Your task to perform on an android device: turn off improve location accuracy Image 0: 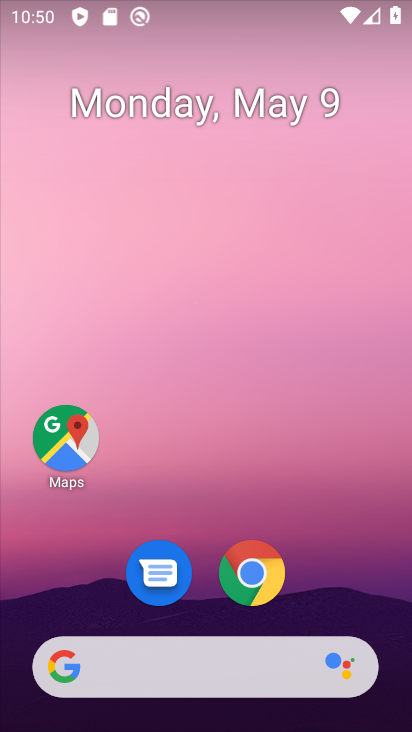
Step 0: drag from (226, 577) to (230, 104)
Your task to perform on an android device: turn off improve location accuracy Image 1: 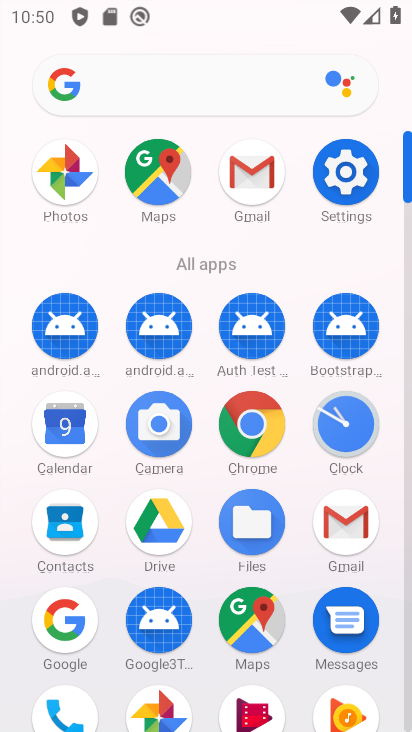
Step 1: click (352, 186)
Your task to perform on an android device: turn off improve location accuracy Image 2: 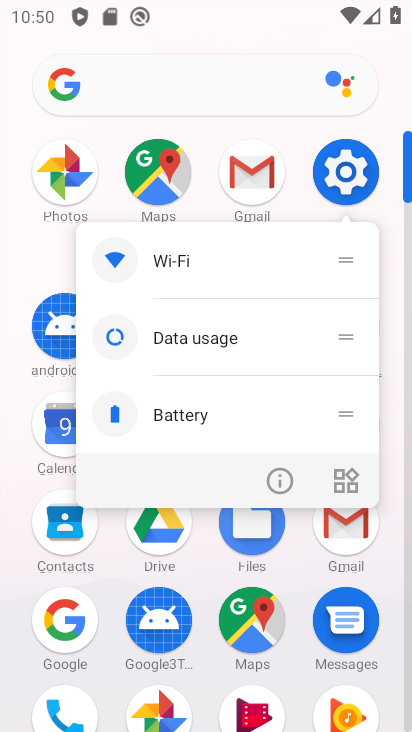
Step 2: click (289, 474)
Your task to perform on an android device: turn off improve location accuracy Image 3: 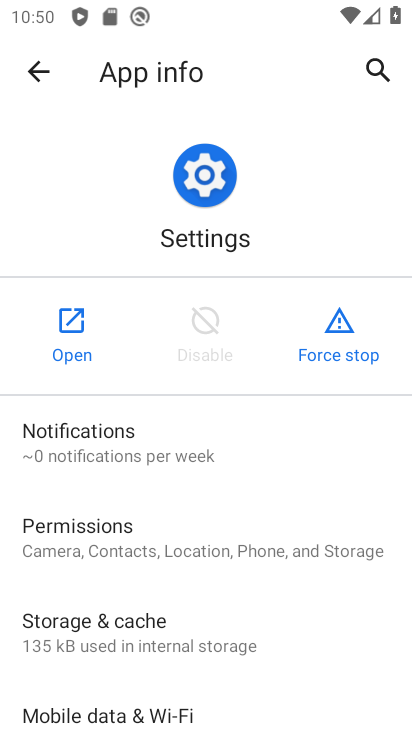
Step 3: click (79, 354)
Your task to perform on an android device: turn off improve location accuracy Image 4: 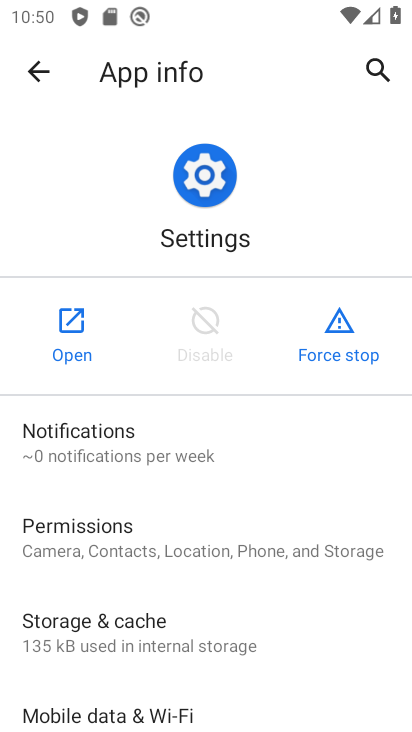
Step 4: click (79, 354)
Your task to perform on an android device: turn off improve location accuracy Image 5: 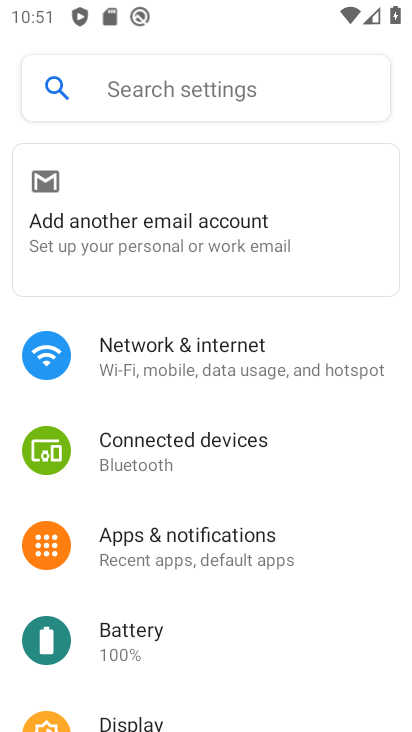
Step 5: drag from (221, 589) to (261, 299)
Your task to perform on an android device: turn off improve location accuracy Image 6: 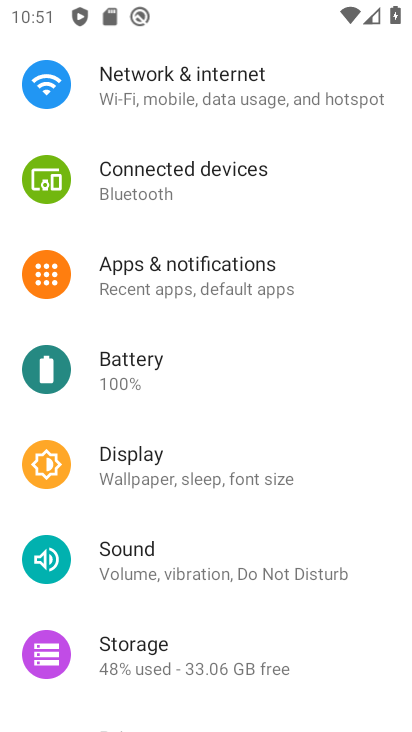
Step 6: drag from (232, 633) to (274, 184)
Your task to perform on an android device: turn off improve location accuracy Image 7: 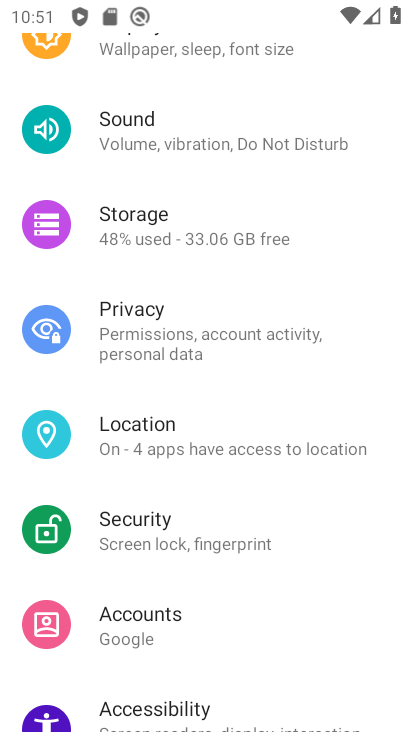
Step 7: click (175, 440)
Your task to perform on an android device: turn off improve location accuracy Image 8: 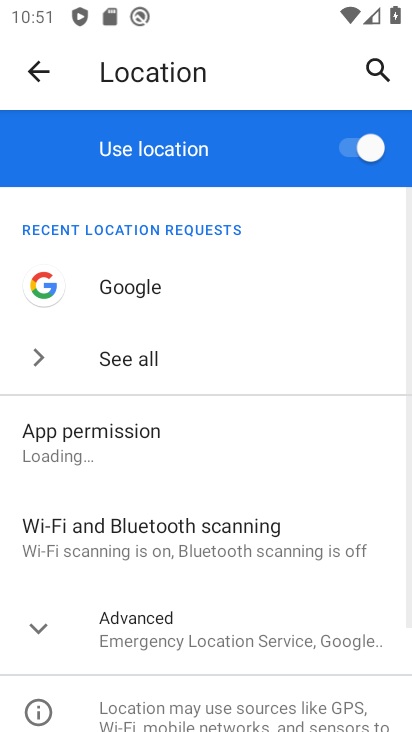
Step 8: drag from (240, 591) to (270, 267)
Your task to perform on an android device: turn off improve location accuracy Image 9: 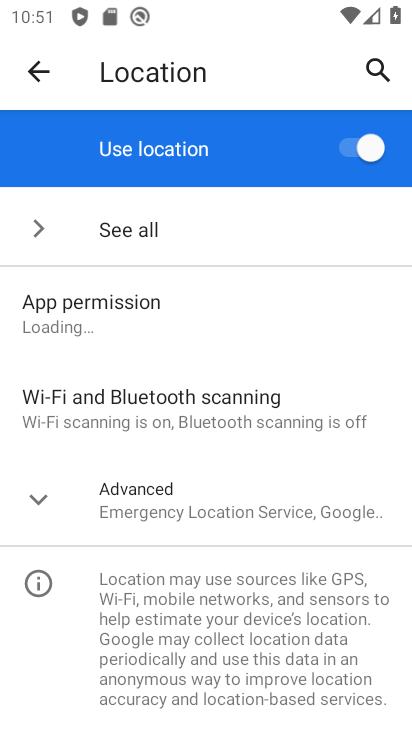
Step 9: click (168, 485)
Your task to perform on an android device: turn off improve location accuracy Image 10: 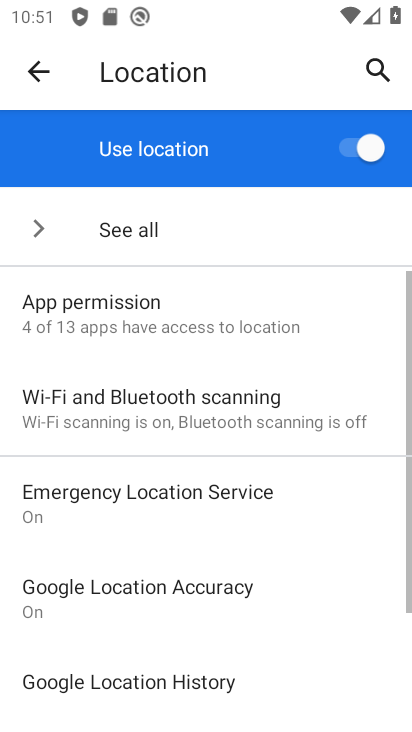
Step 10: drag from (186, 587) to (231, 297)
Your task to perform on an android device: turn off improve location accuracy Image 11: 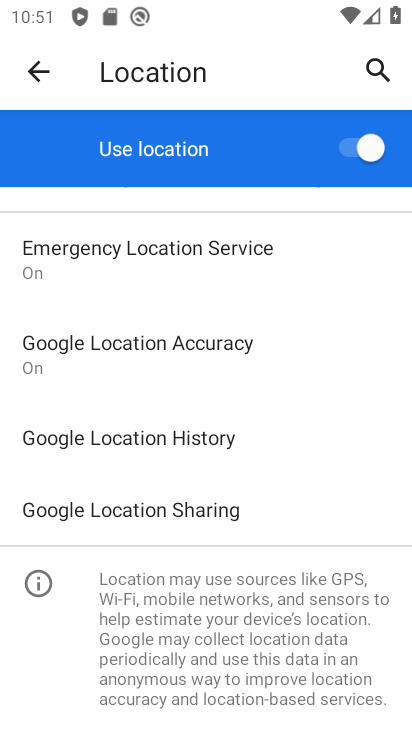
Step 11: click (211, 355)
Your task to perform on an android device: turn off improve location accuracy Image 12: 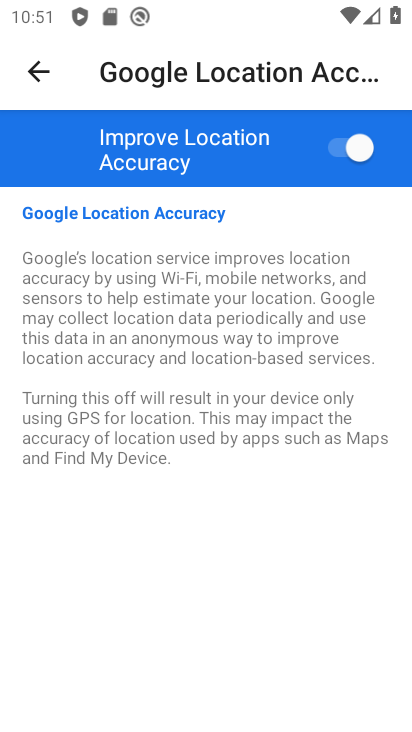
Step 12: click (340, 155)
Your task to perform on an android device: turn off improve location accuracy Image 13: 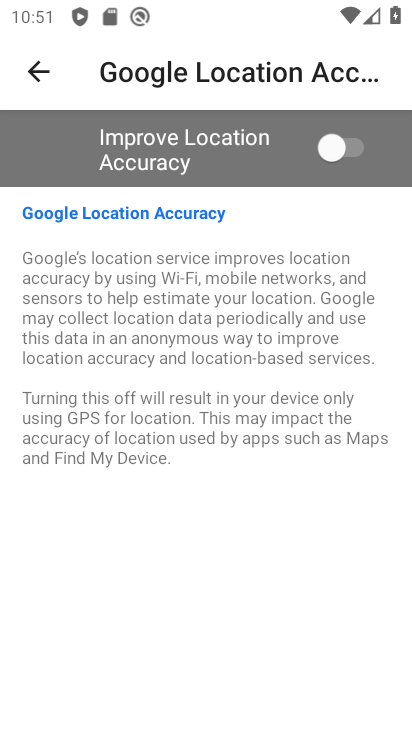
Step 13: task complete